Your task to perform on an android device: Open ESPN.com Image 0: 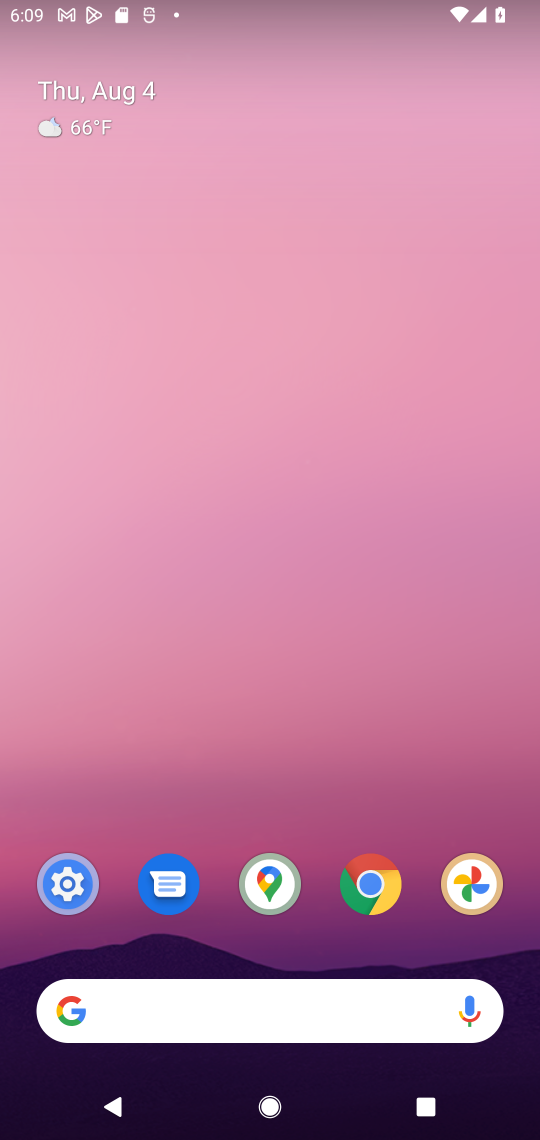
Step 0: drag from (323, 954) to (287, 308)
Your task to perform on an android device: Open ESPN.com Image 1: 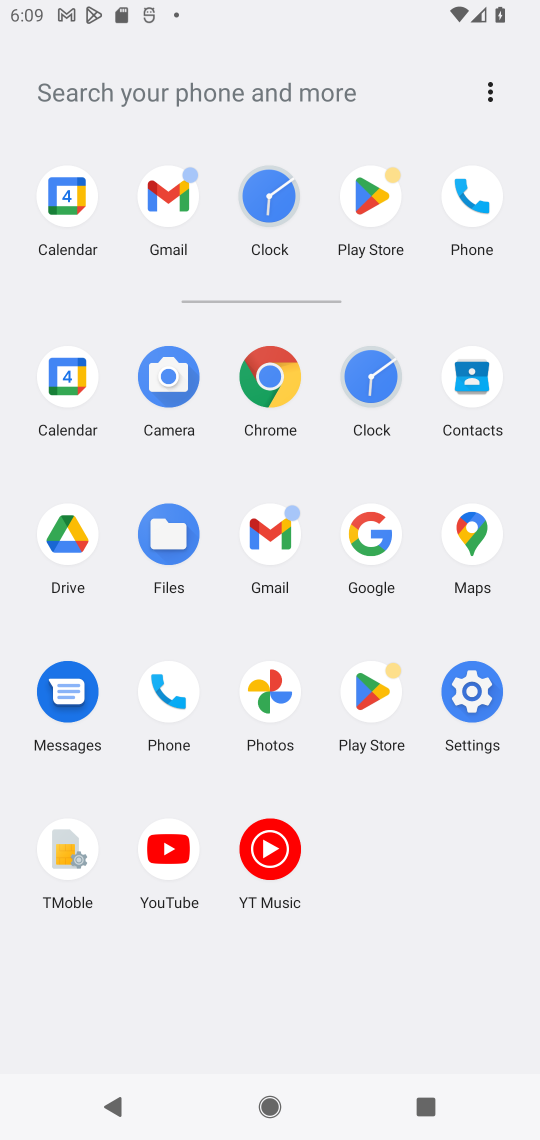
Step 1: click (264, 406)
Your task to perform on an android device: Open ESPN.com Image 2: 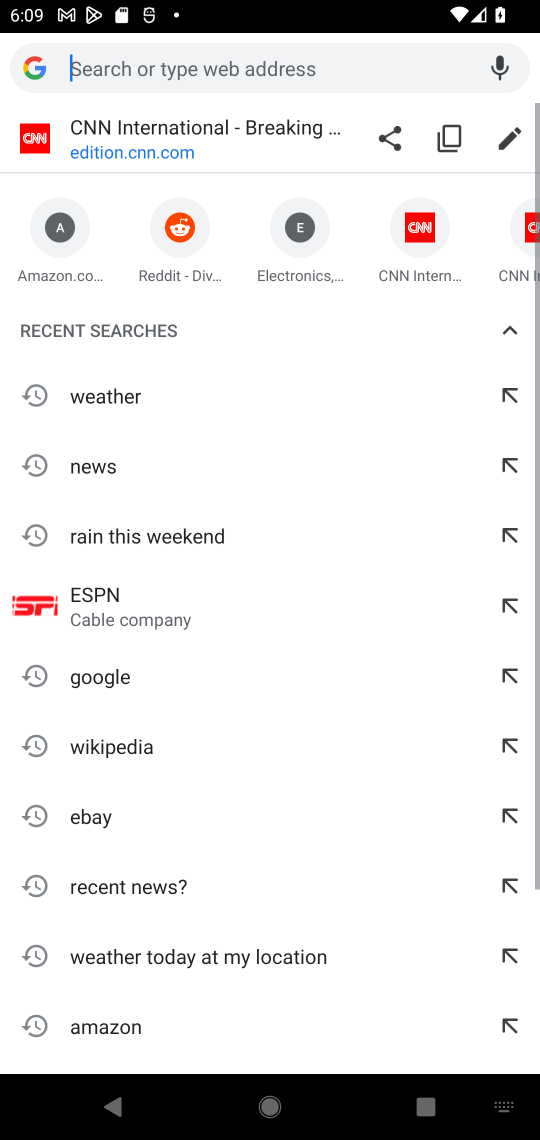
Step 2: click (281, 68)
Your task to perform on an android device: Open ESPN.com Image 3: 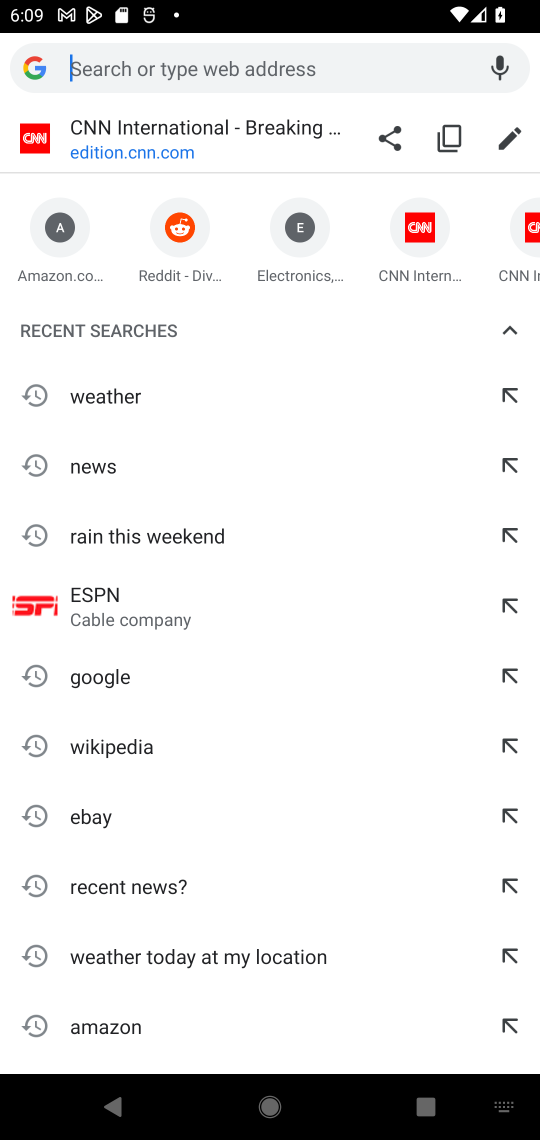
Step 3: type "espn.com"
Your task to perform on an android device: Open ESPN.com Image 4: 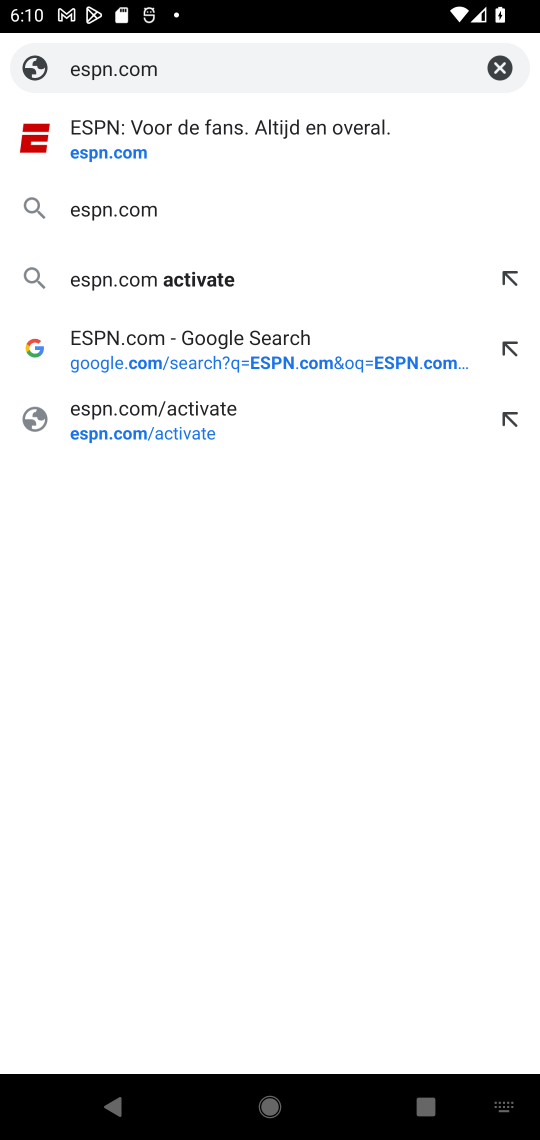
Step 4: click (202, 164)
Your task to perform on an android device: Open ESPN.com Image 5: 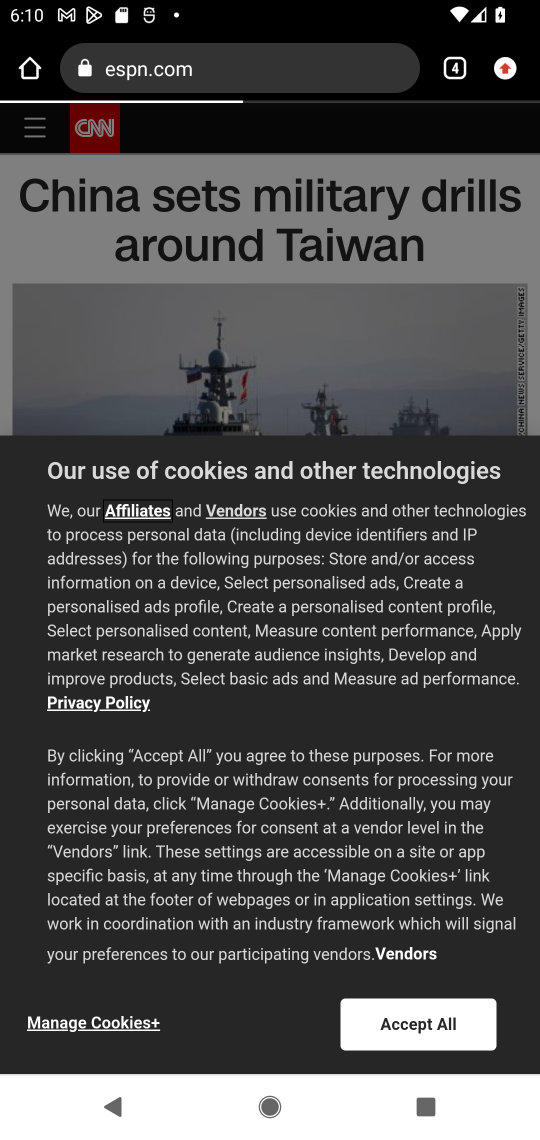
Step 5: task complete